Your task to perform on an android device: toggle show notifications on the lock screen Image 0: 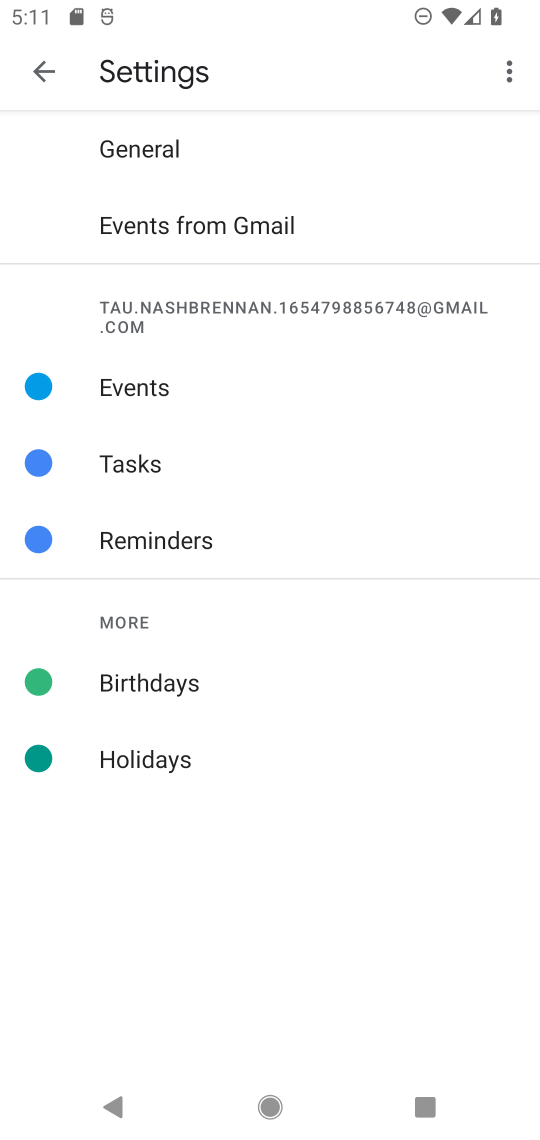
Step 0: press home button
Your task to perform on an android device: toggle show notifications on the lock screen Image 1: 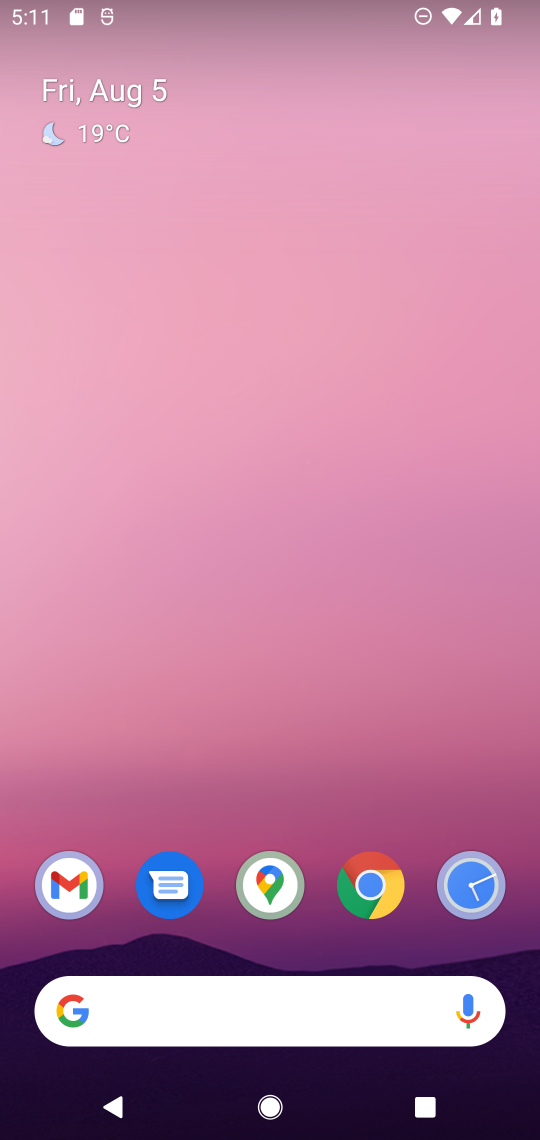
Step 1: drag from (215, 958) to (240, 36)
Your task to perform on an android device: toggle show notifications on the lock screen Image 2: 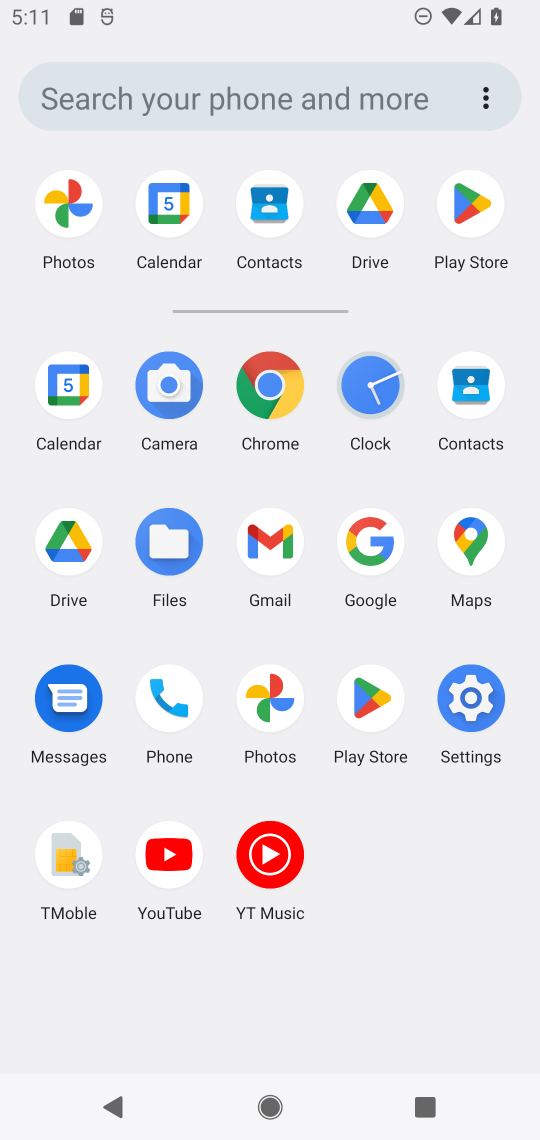
Step 2: click (473, 717)
Your task to perform on an android device: toggle show notifications on the lock screen Image 3: 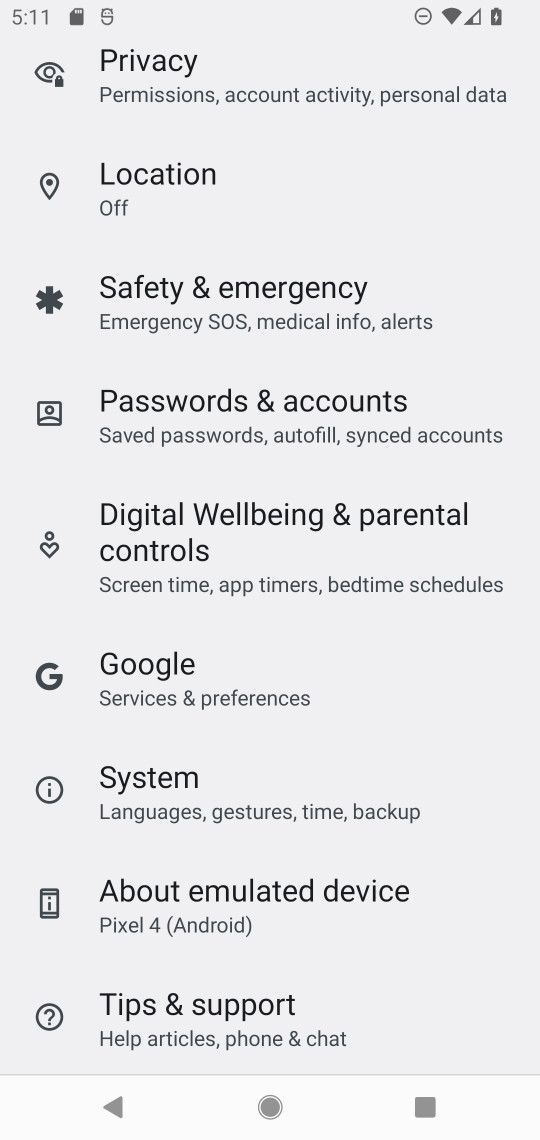
Step 3: drag from (268, 186) to (286, 852)
Your task to perform on an android device: toggle show notifications on the lock screen Image 4: 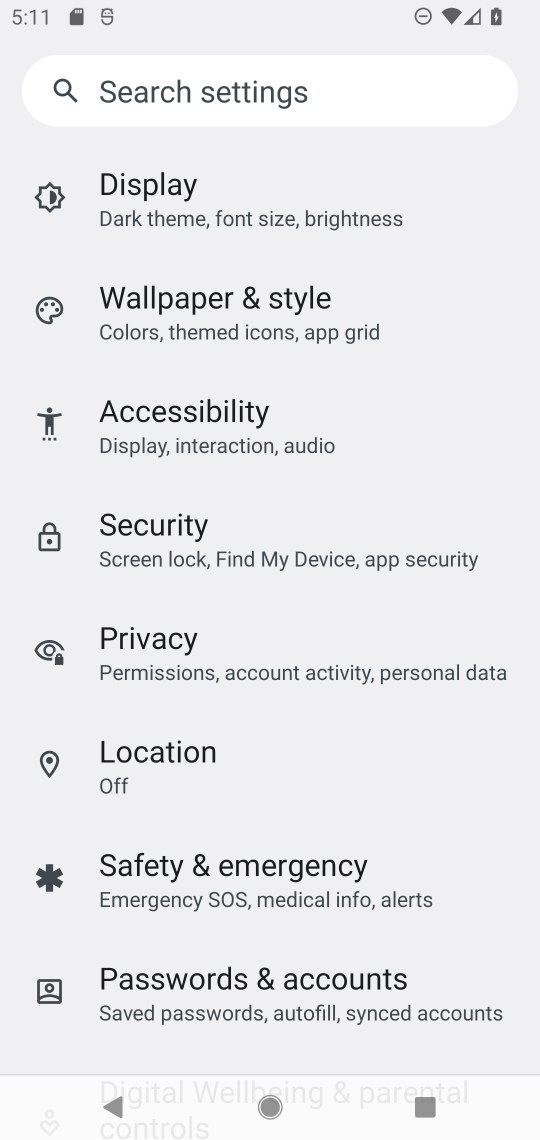
Step 4: drag from (252, 273) to (327, 1126)
Your task to perform on an android device: toggle show notifications on the lock screen Image 5: 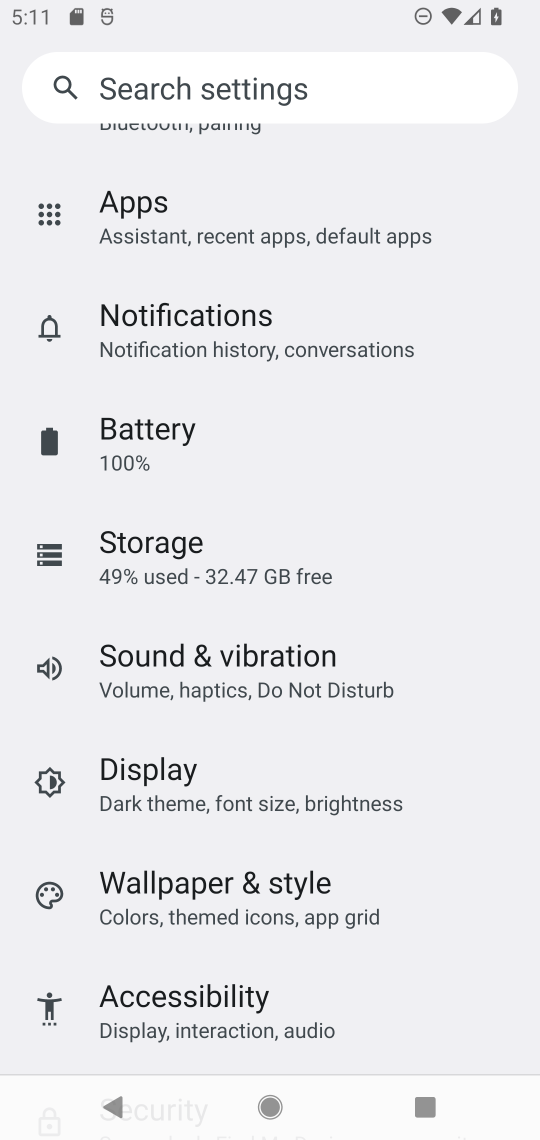
Step 5: drag from (254, 267) to (212, 1050)
Your task to perform on an android device: toggle show notifications on the lock screen Image 6: 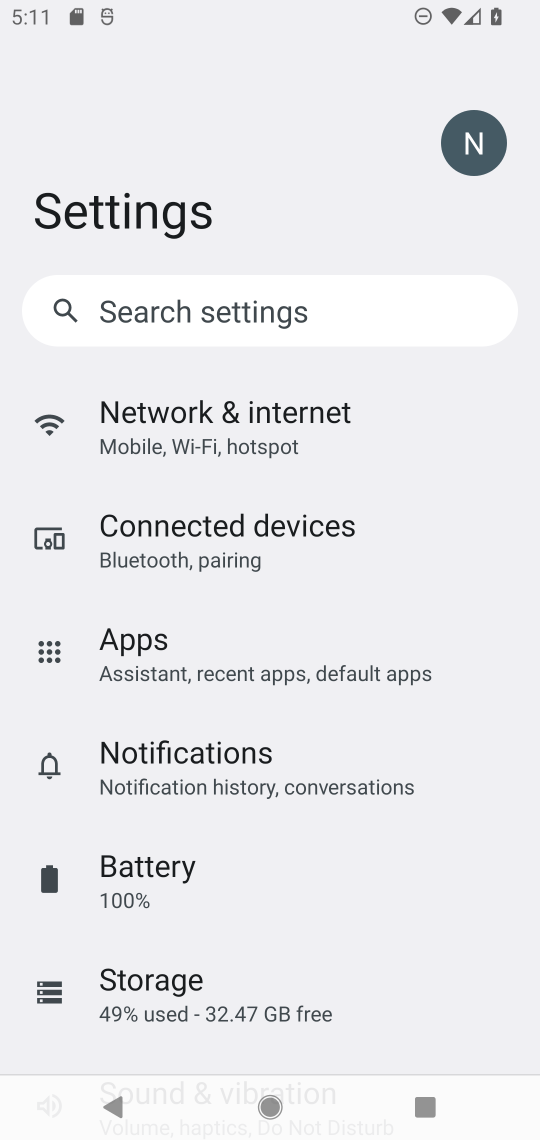
Step 6: click (237, 765)
Your task to perform on an android device: toggle show notifications on the lock screen Image 7: 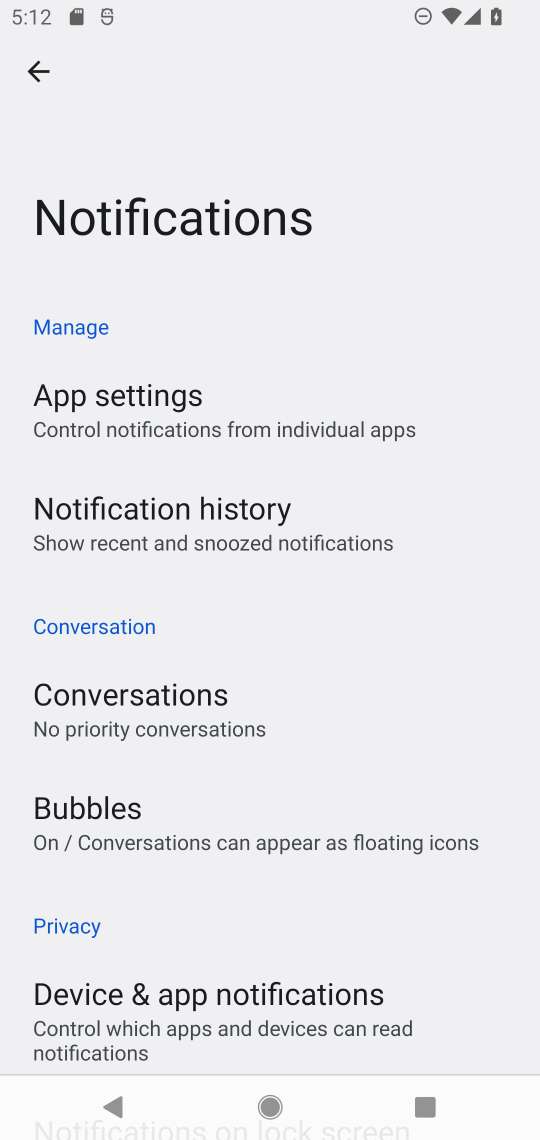
Step 7: drag from (187, 1001) to (208, 491)
Your task to perform on an android device: toggle show notifications on the lock screen Image 8: 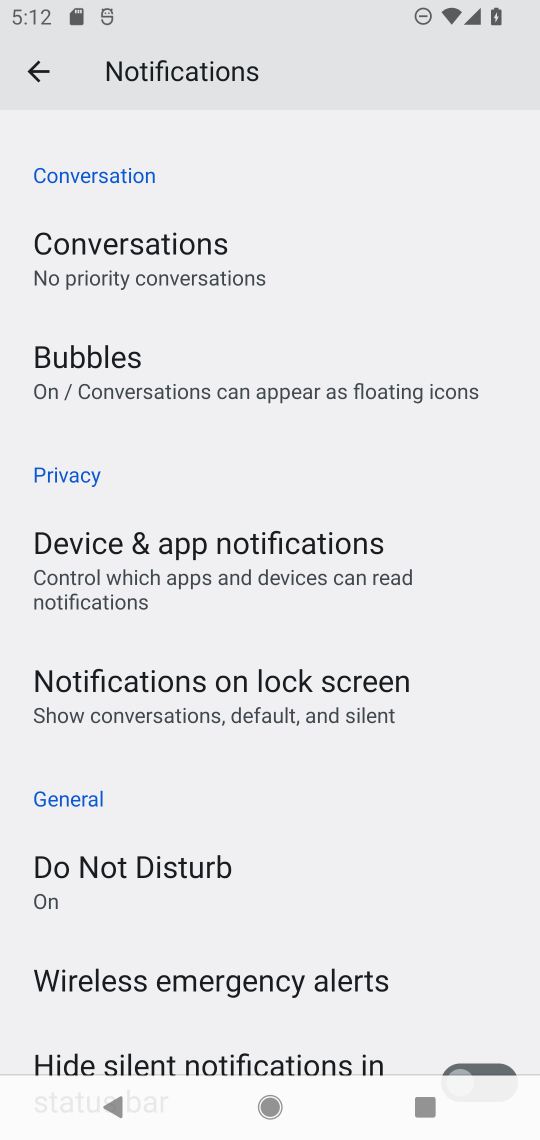
Step 8: drag from (177, 972) to (182, 408)
Your task to perform on an android device: toggle show notifications on the lock screen Image 9: 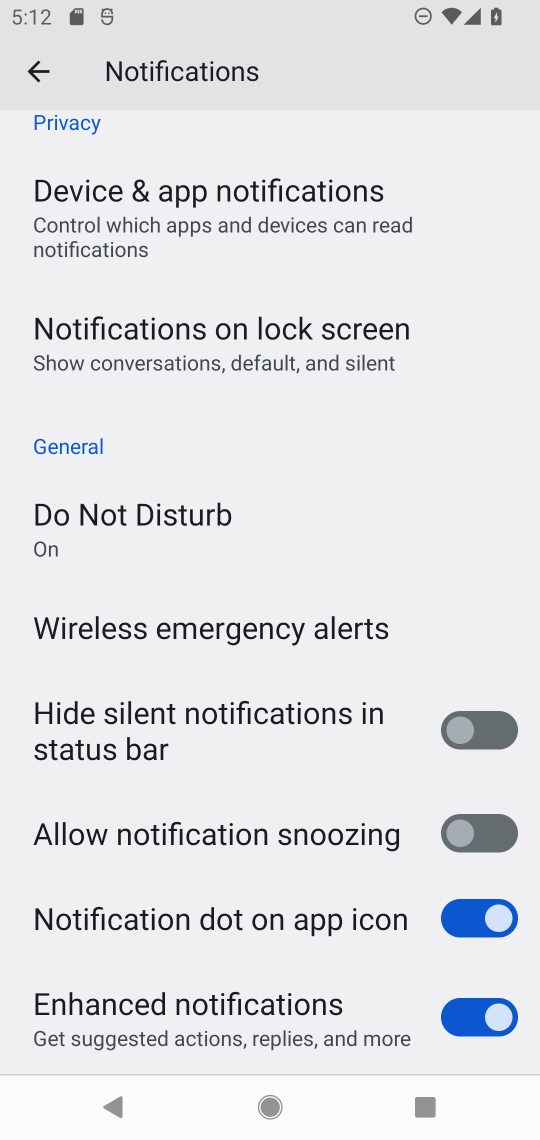
Step 9: click (478, 917)
Your task to perform on an android device: toggle show notifications on the lock screen Image 10: 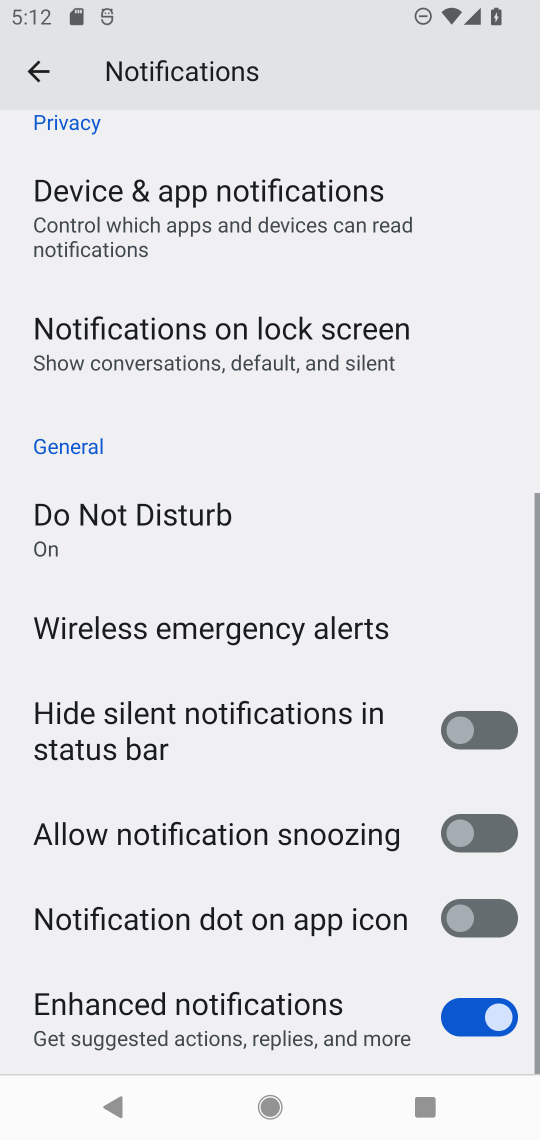
Step 10: task complete